Your task to perform on an android device: Show me the alarms in the clock app Image 0: 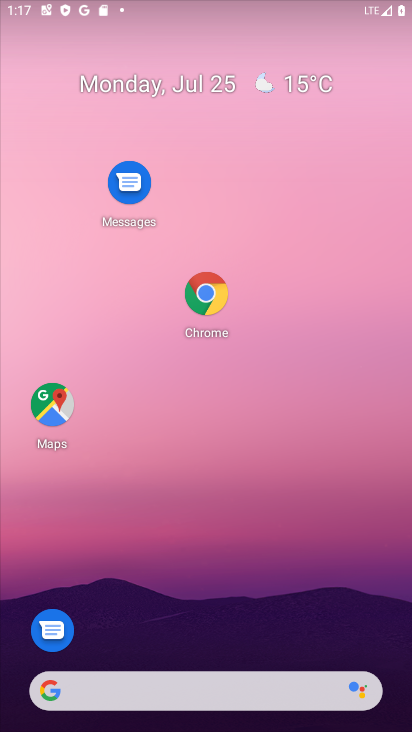
Step 0: drag from (192, 589) to (166, 11)
Your task to perform on an android device: Show me the alarms in the clock app Image 1: 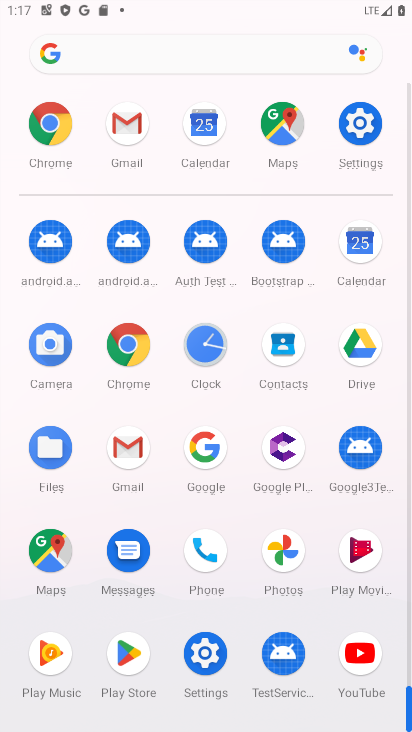
Step 1: click (226, 351)
Your task to perform on an android device: Show me the alarms in the clock app Image 2: 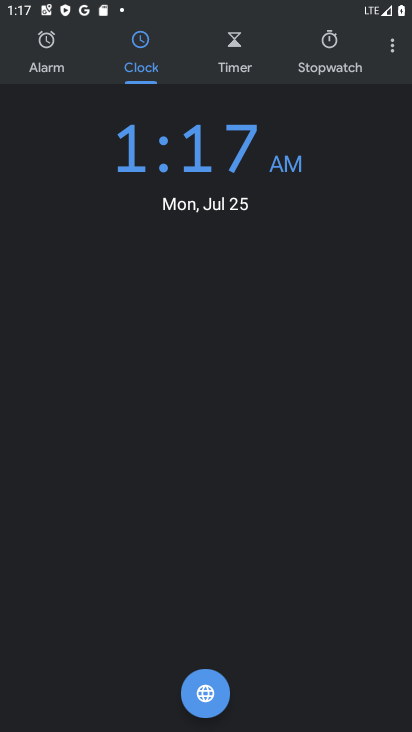
Step 2: click (41, 68)
Your task to perform on an android device: Show me the alarms in the clock app Image 3: 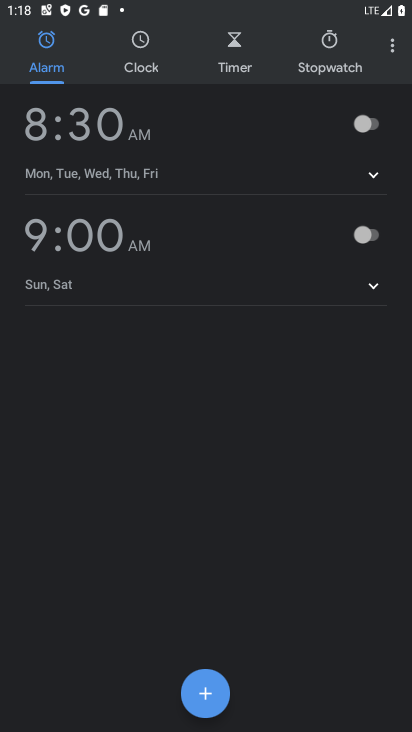
Step 3: task complete